Your task to perform on an android device: Play the last video I watched on Youtube Image 0: 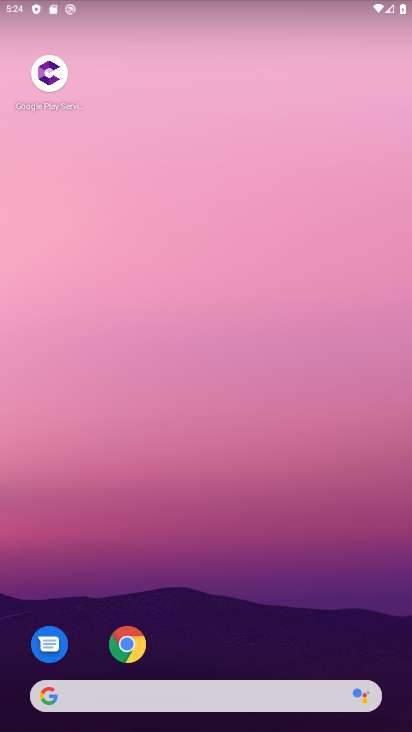
Step 0: press home button
Your task to perform on an android device: Play the last video I watched on Youtube Image 1: 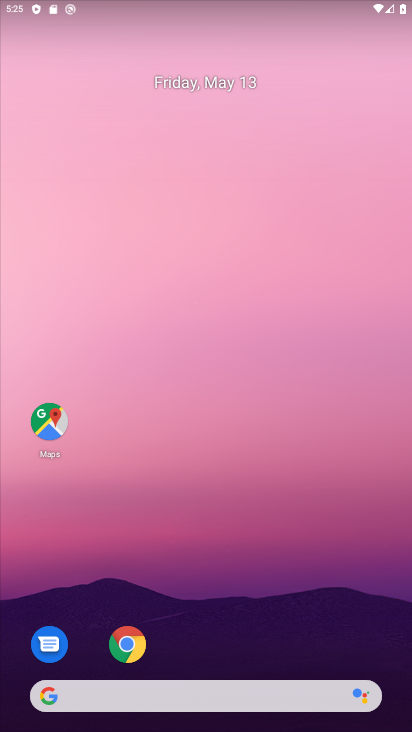
Step 1: drag from (222, 653) to (313, 22)
Your task to perform on an android device: Play the last video I watched on Youtube Image 2: 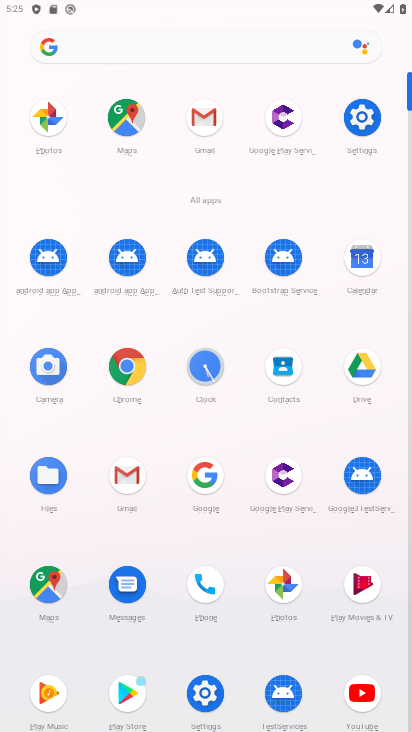
Step 2: click (361, 702)
Your task to perform on an android device: Play the last video I watched on Youtube Image 3: 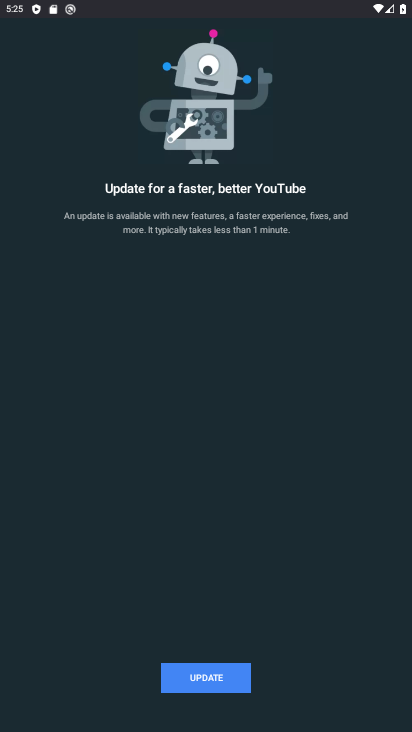
Step 3: click (184, 685)
Your task to perform on an android device: Play the last video I watched on Youtube Image 4: 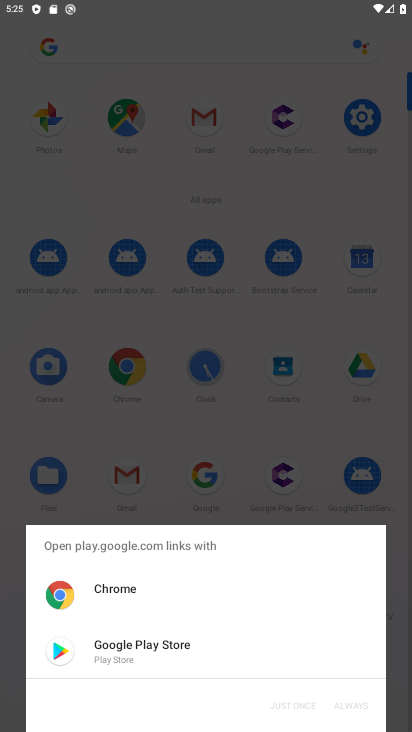
Step 4: click (216, 645)
Your task to perform on an android device: Play the last video I watched on Youtube Image 5: 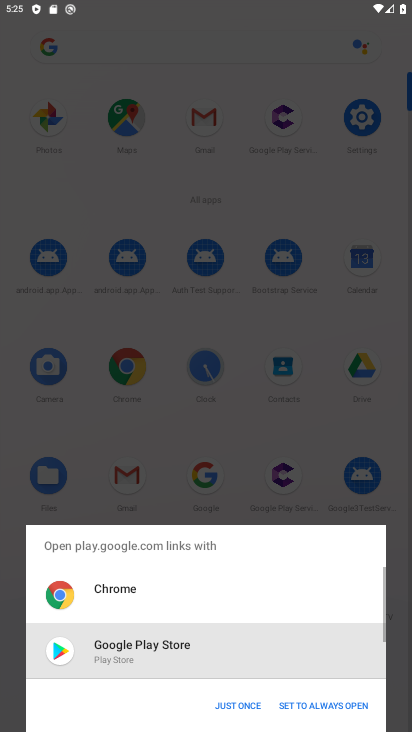
Step 5: click (237, 711)
Your task to perform on an android device: Play the last video I watched on Youtube Image 6: 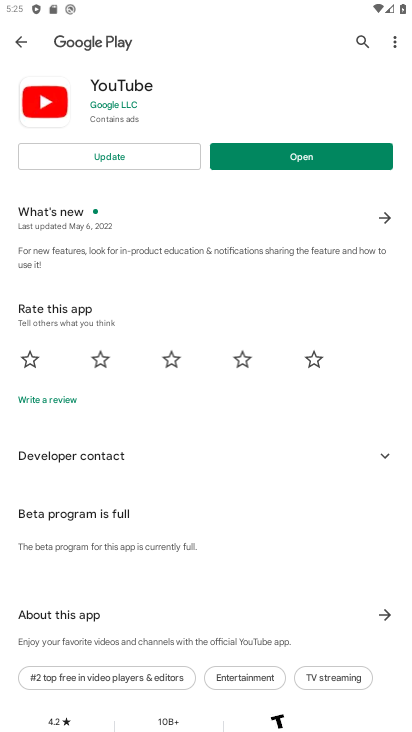
Step 6: click (111, 159)
Your task to perform on an android device: Play the last video I watched on Youtube Image 7: 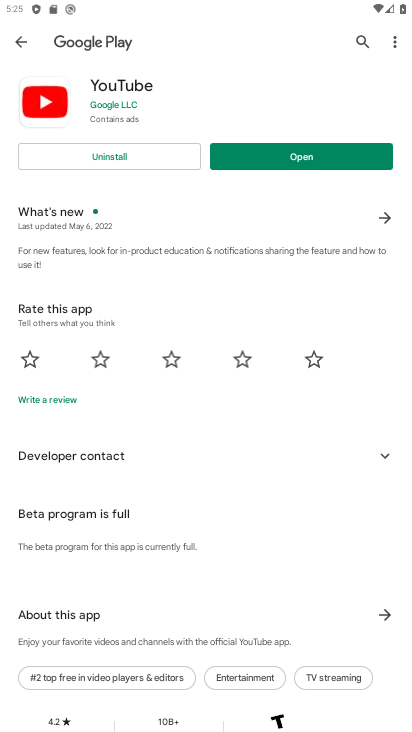
Step 7: click (282, 158)
Your task to perform on an android device: Play the last video I watched on Youtube Image 8: 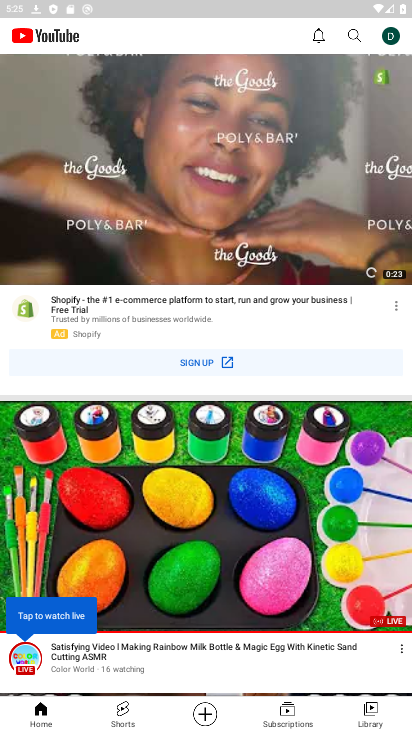
Step 8: click (372, 717)
Your task to perform on an android device: Play the last video I watched on Youtube Image 9: 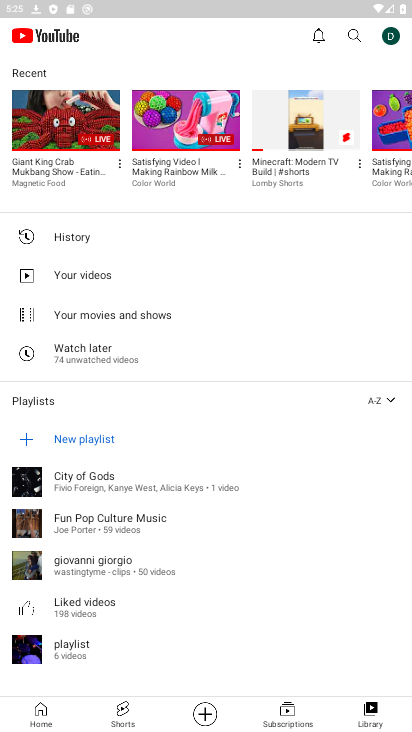
Step 9: click (42, 130)
Your task to perform on an android device: Play the last video I watched on Youtube Image 10: 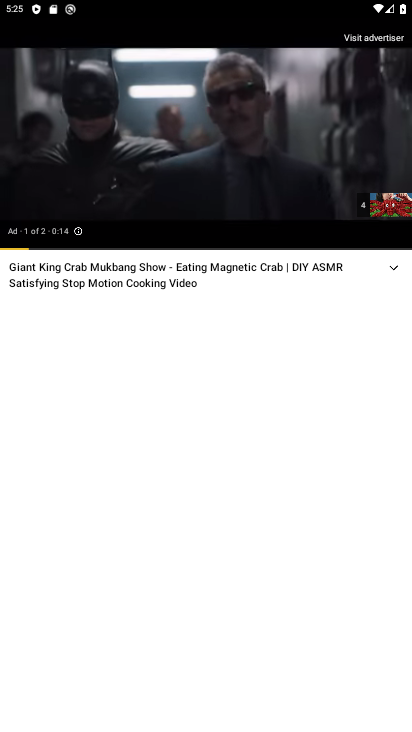
Step 10: task complete